Your task to perform on an android device: When is my next appointment? Image 0: 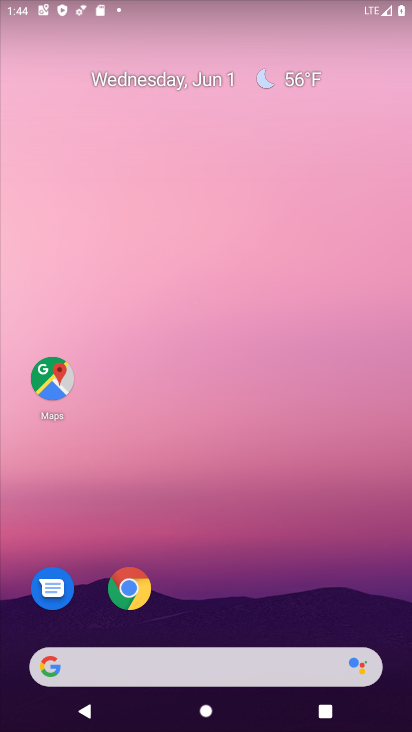
Step 0: click (187, 77)
Your task to perform on an android device: When is my next appointment? Image 1: 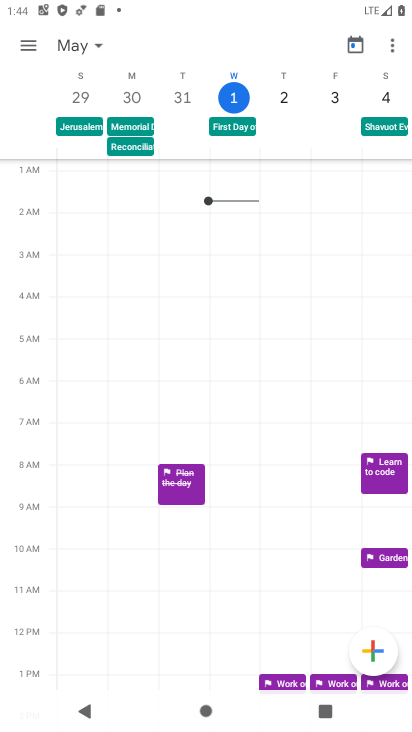
Step 1: task complete